Your task to perform on an android device: toggle location history Image 0: 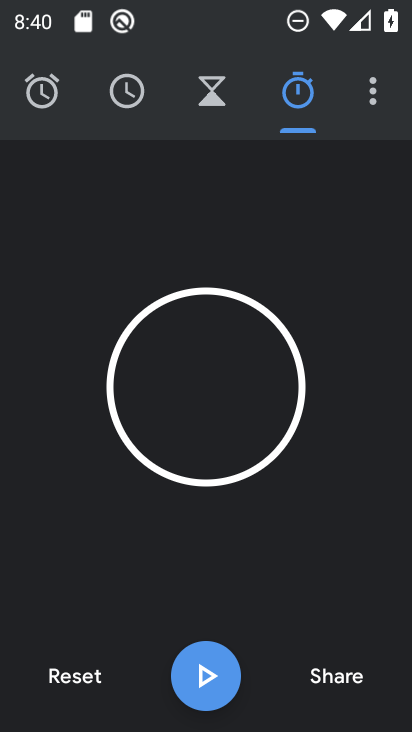
Step 0: press home button
Your task to perform on an android device: toggle location history Image 1: 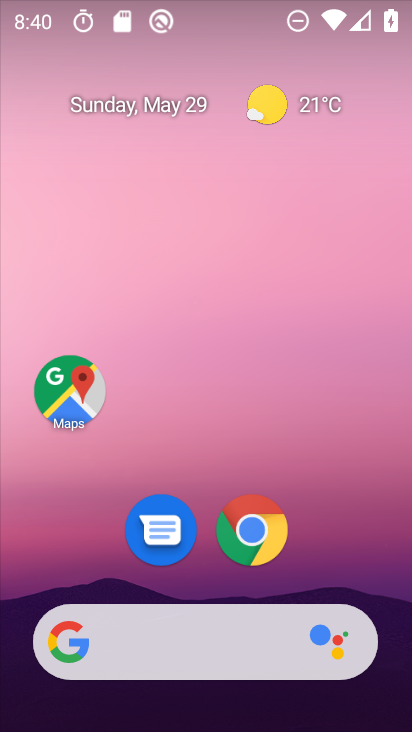
Step 1: drag from (196, 688) to (329, 116)
Your task to perform on an android device: toggle location history Image 2: 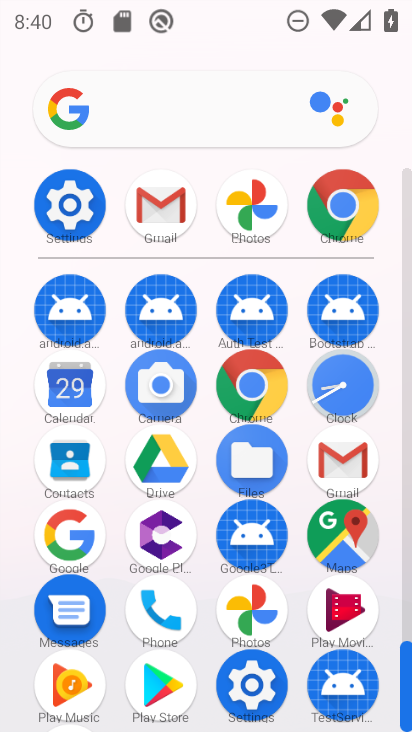
Step 2: click (76, 209)
Your task to perform on an android device: toggle location history Image 3: 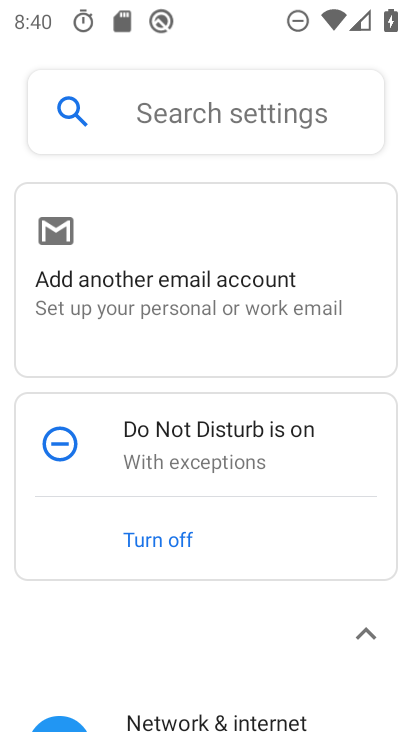
Step 3: click (204, 117)
Your task to perform on an android device: toggle location history Image 4: 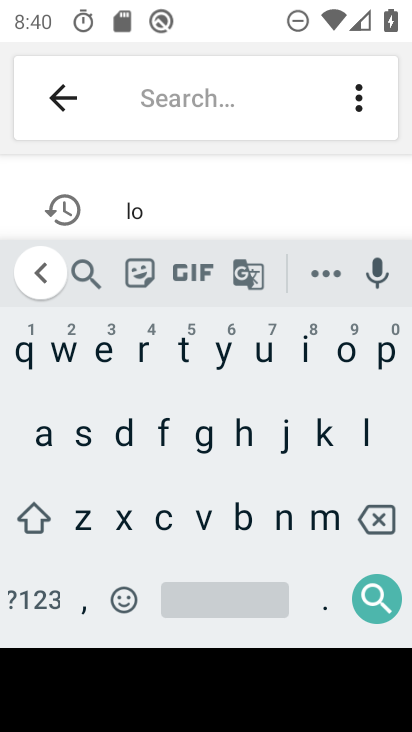
Step 4: click (143, 204)
Your task to perform on an android device: toggle location history Image 5: 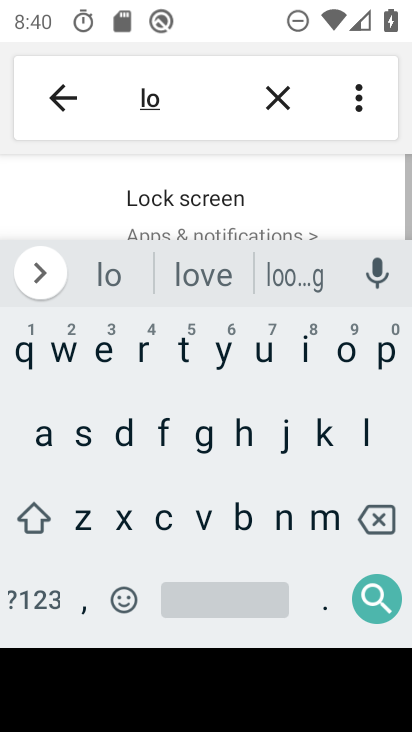
Step 5: press back button
Your task to perform on an android device: toggle location history Image 6: 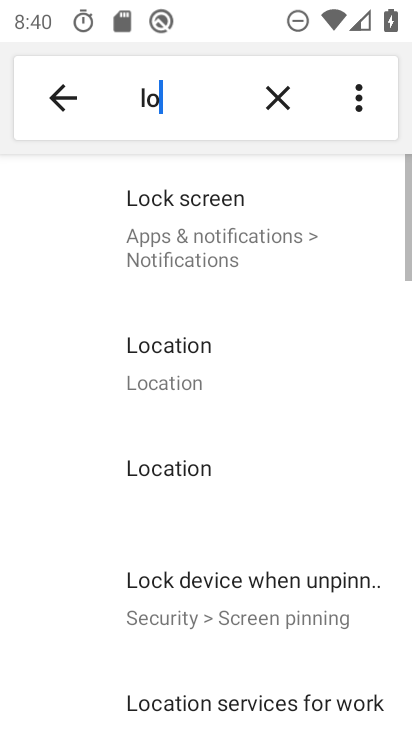
Step 6: click (149, 369)
Your task to perform on an android device: toggle location history Image 7: 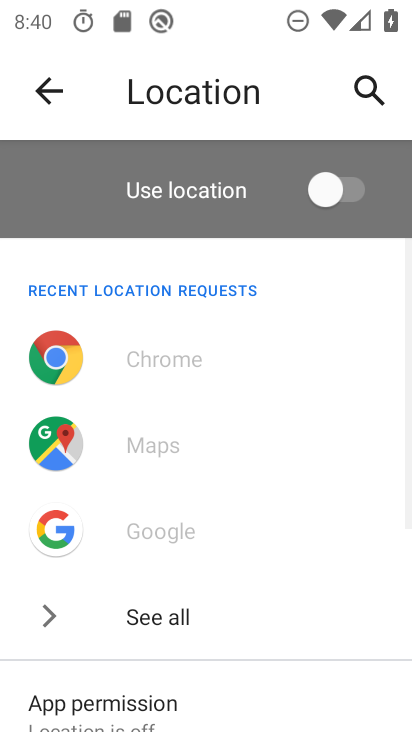
Step 7: drag from (143, 564) to (226, 216)
Your task to perform on an android device: toggle location history Image 8: 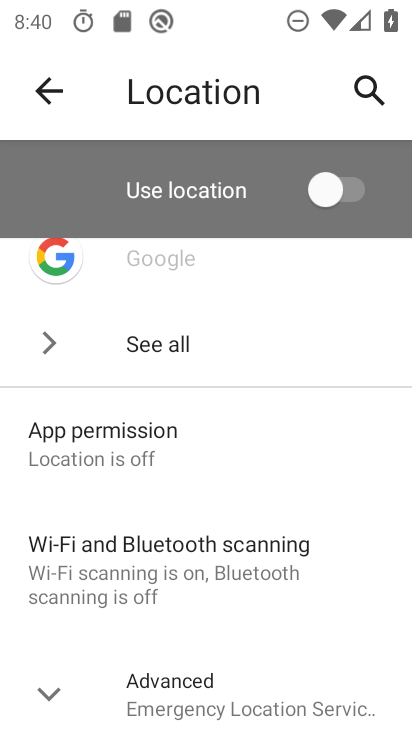
Step 8: click (63, 684)
Your task to perform on an android device: toggle location history Image 9: 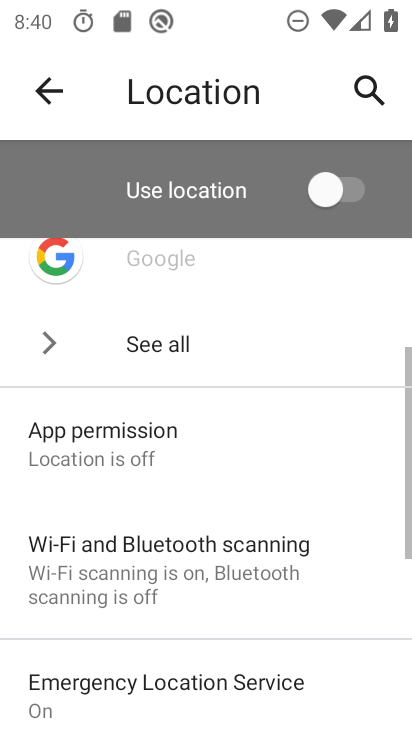
Step 9: drag from (151, 632) to (210, 273)
Your task to perform on an android device: toggle location history Image 10: 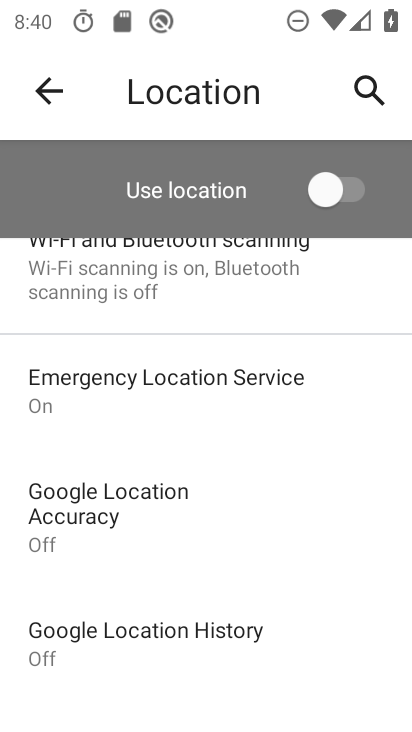
Step 10: click (157, 631)
Your task to perform on an android device: toggle location history Image 11: 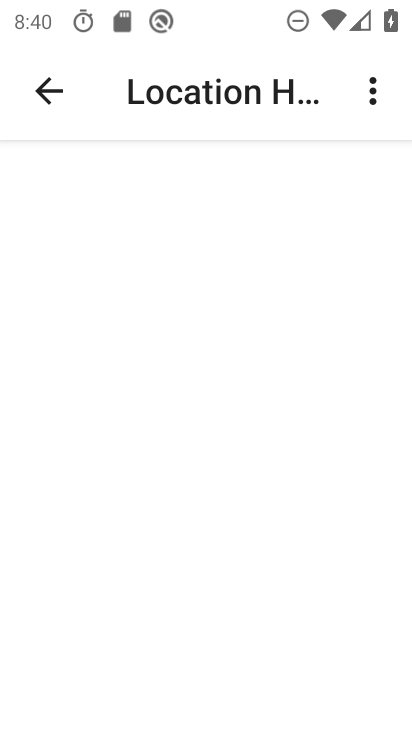
Step 11: task complete